Your task to perform on an android device: check battery use Image 0: 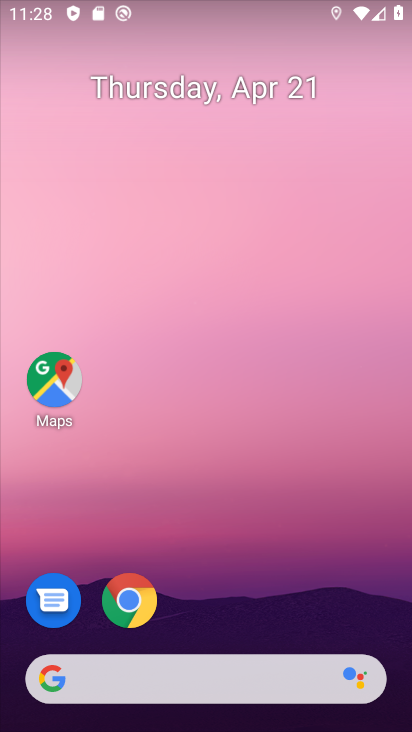
Step 0: drag from (308, 637) to (215, 7)
Your task to perform on an android device: check battery use Image 1: 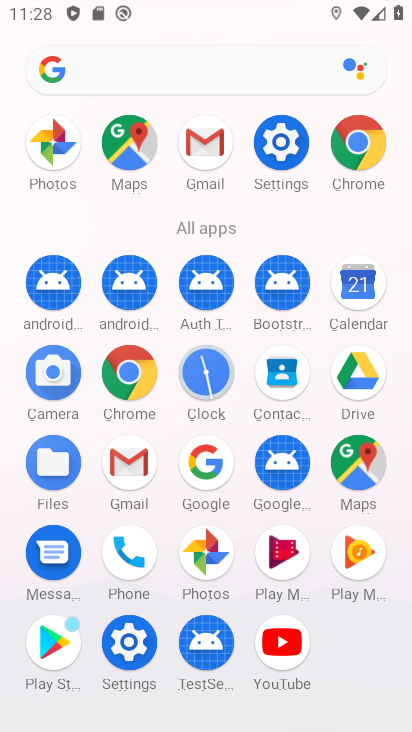
Step 1: click (279, 146)
Your task to perform on an android device: check battery use Image 2: 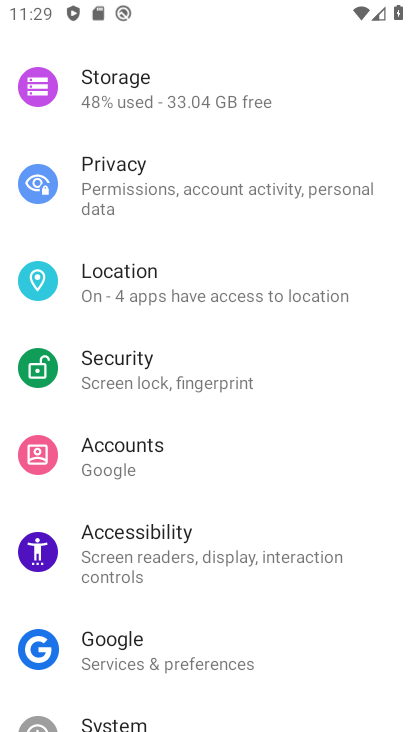
Step 2: drag from (166, 174) to (142, 539)
Your task to perform on an android device: check battery use Image 3: 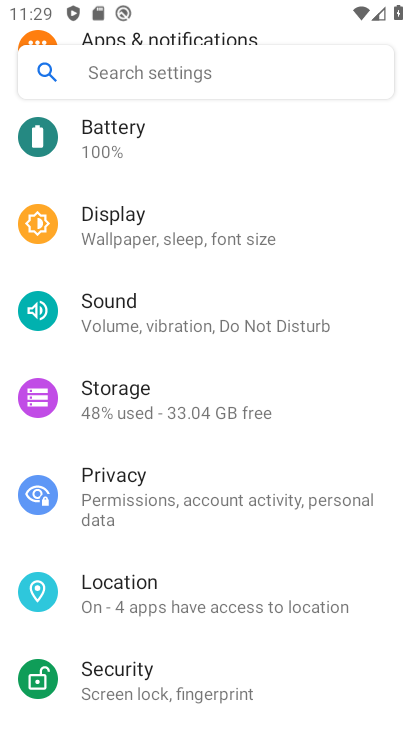
Step 3: click (113, 143)
Your task to perform on an android device: check battery use Image 4: 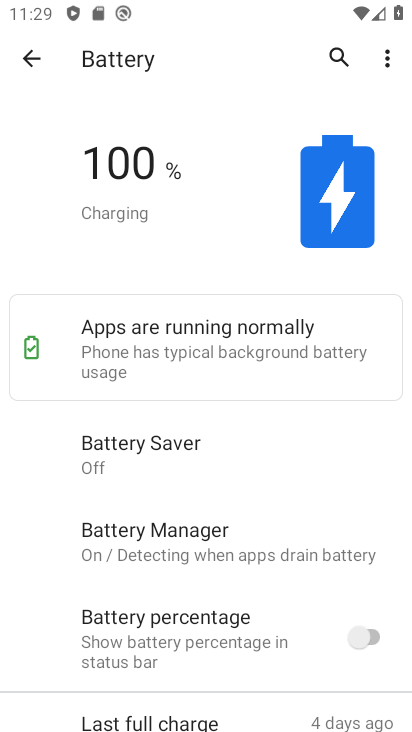
Step 4: click (393, 60)
Your task to perform on an android device: check battery use Image 5: 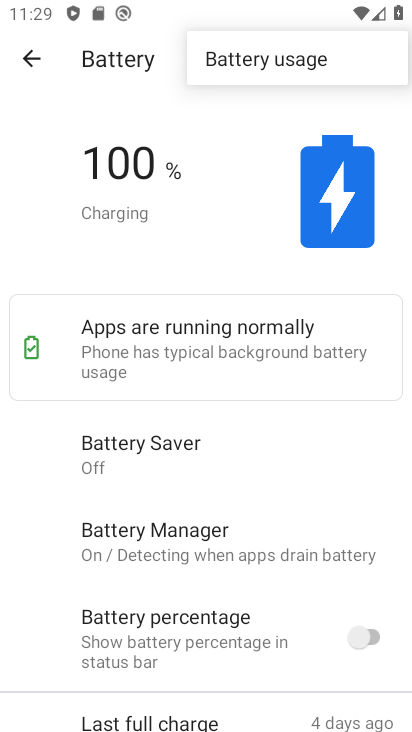
Step 5: click (320, 52)
Your task to perform on an android device: check battery use Image 6: 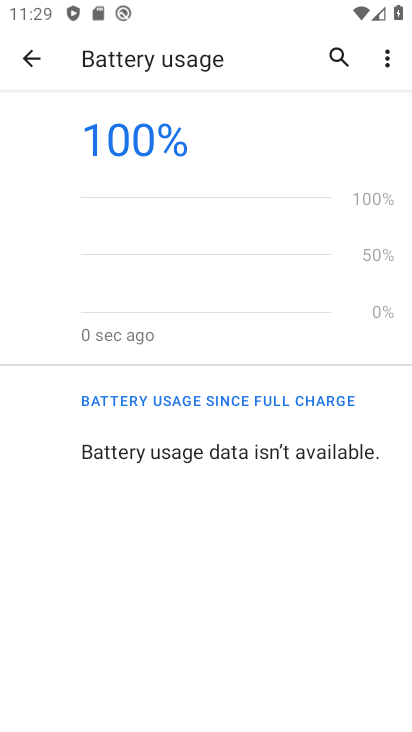
Step 6: task complete